Your task to perform on an android device: Go to location settings Image 0: 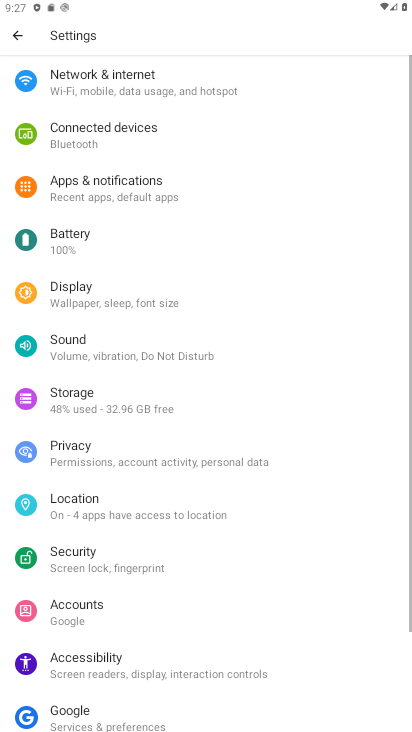
Step 0: press home button
Your task to perform on an android device: Go to location settings Image 1: 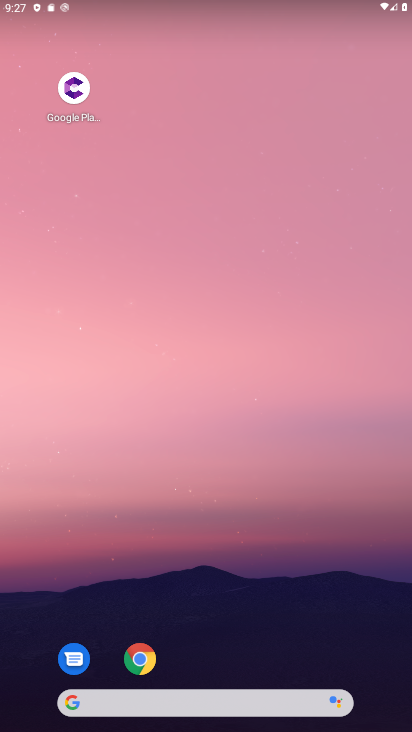
Step 1: drag from (172, 698) to (321, 0)
Your task to perform on an android device: Go to location settings Image 2: 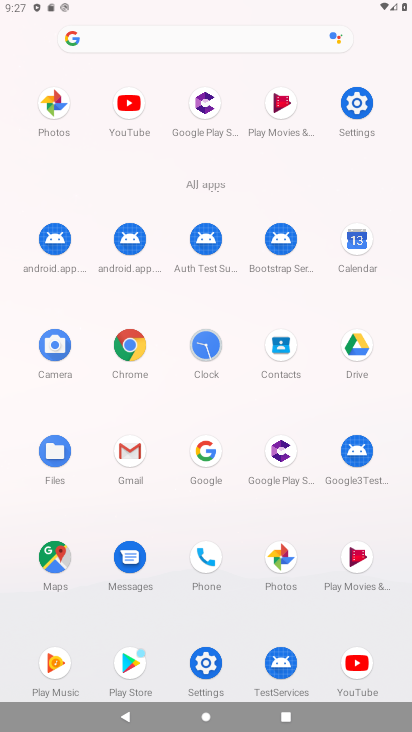
Step 2: click (358, 119)
Your task to perform on an android device: Go to location settings Image 3: 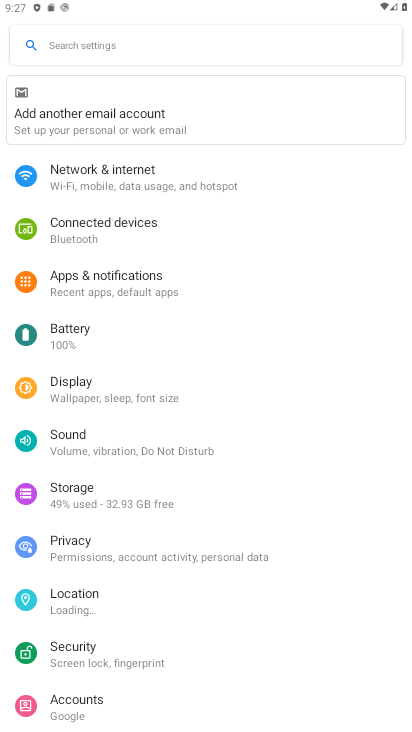
Step 3: click (93, 588)
Your task to perform on an android device: Go to location settings Image 4: 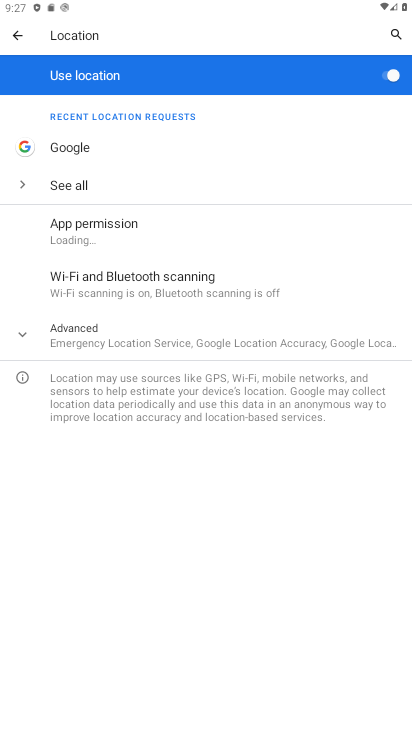
Step 4: task complete